Your task to perform on an android device: Do I have any events tomorrow? Image 0: 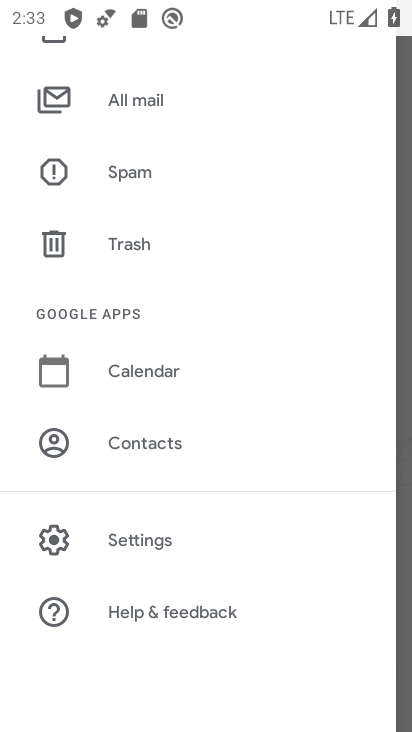
Step 0: press home button
Your task to perform on an android device: Do I have any events tomorrow? Image 1: 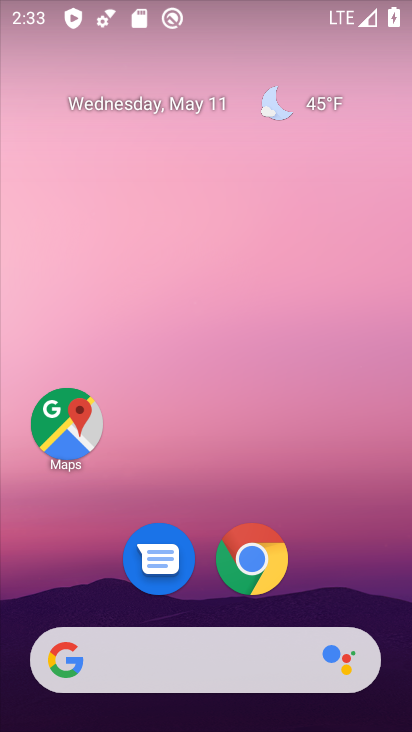
Step 1: click (162, 96)
Your task to perform on an android device: Do I have any events tomorrow? Image 2: 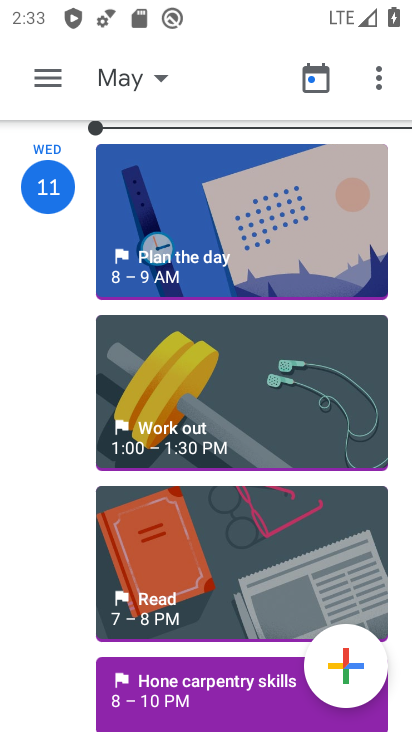
Step 2: task complete